Your task to perform on an android device: Go to location settings Image 0: 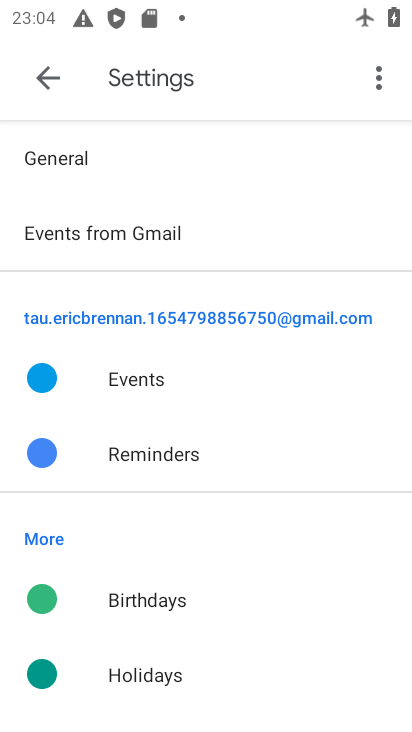
Step 0: click (109, 213)
Your task to perform on an android device: Go to location settings Image 1: 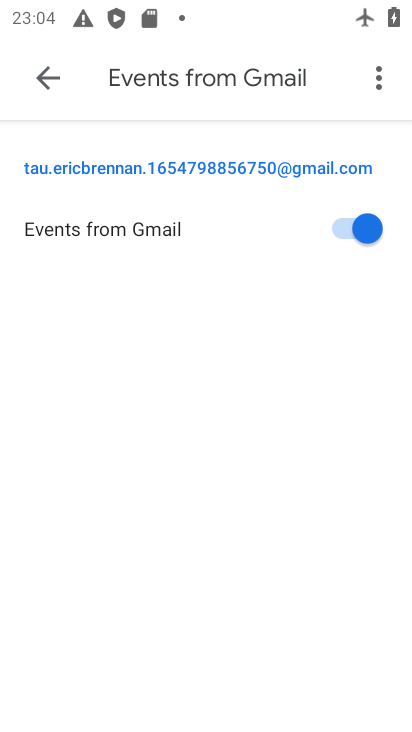
Step 1: click (42, 64)
Your task to perform on an android device: Go to location settings Image 2: 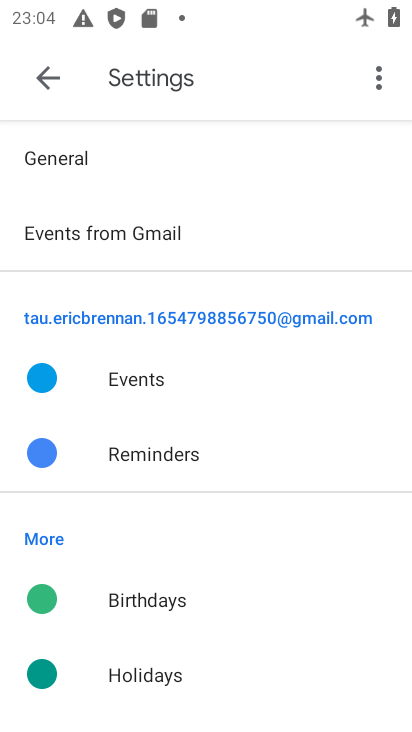
Step 2: click (41, 78)
Your task to perform on an android device: Go to location settings Image 3: 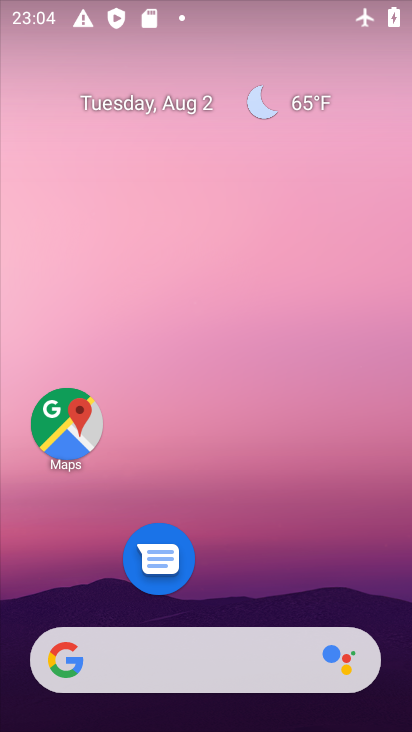
Step 3: drag from (272, 580) to (210, 148)
Your task to perform on an android device: Go to location settings Image 4: 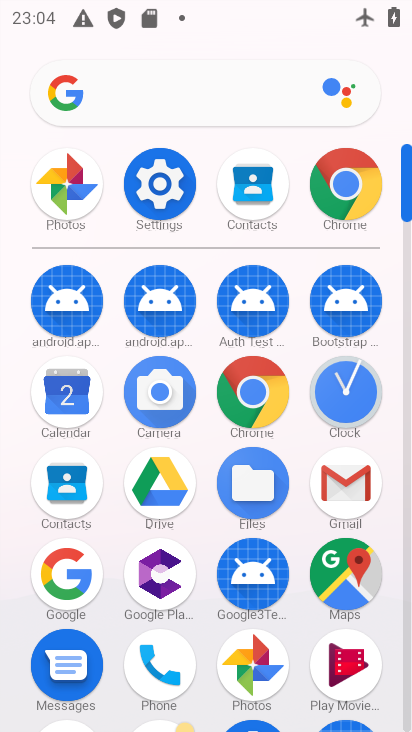
Step 4: click (144, 197)
Your task to perform on an android device: Go to location settings Image 5: 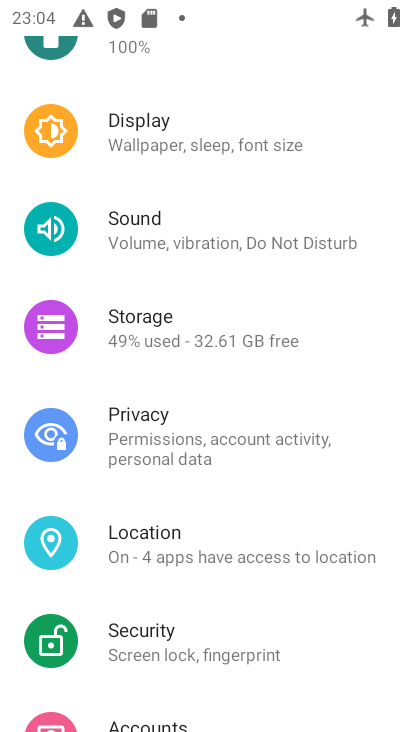
Step 5: click (149, 550)
Your task to perform on an android device: Go to location settings Image 6: 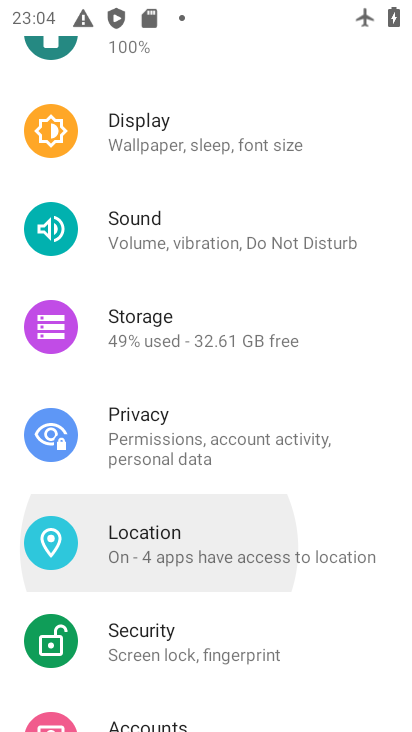
Step 6: click (153, 552)
Your task to perform on an android device: Go to location settings Image 7: 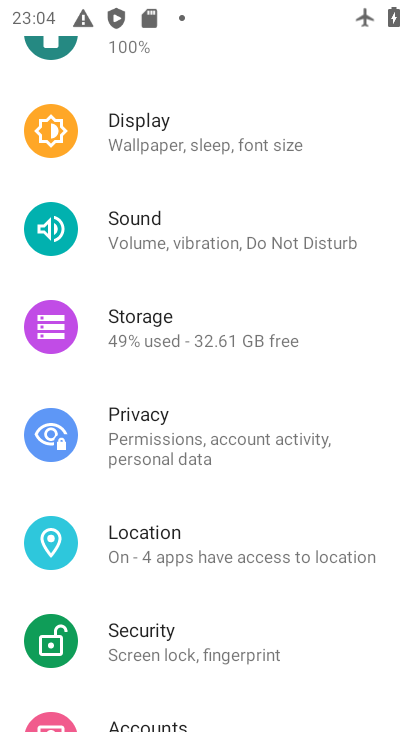
Step 7: click (154, 551)
Your task to perform on an android device: Go to location settings Image 8: 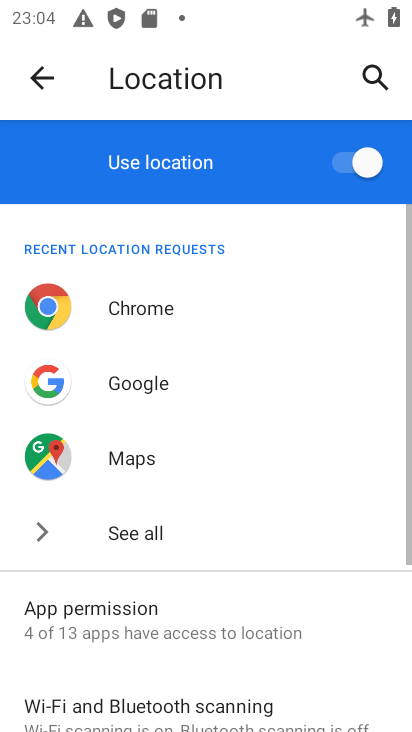
Step 8: drag from (170, 631) to (166, 374)
Your task to perform on an android device: Go to location settings Image 9: 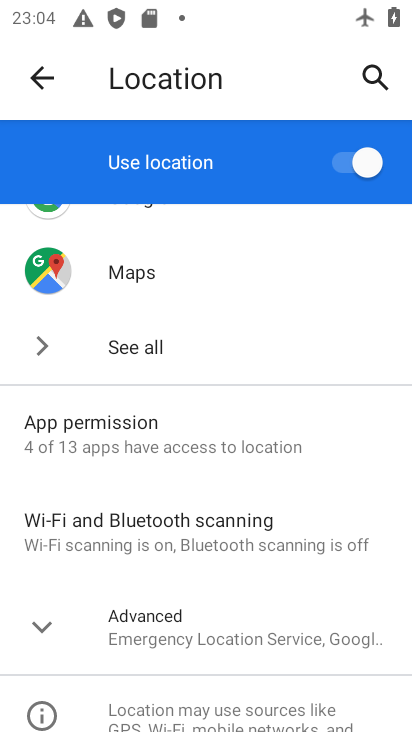
Step 9: click (360, 160)
Your task to perform on an android device: Go to location settings Image 10: 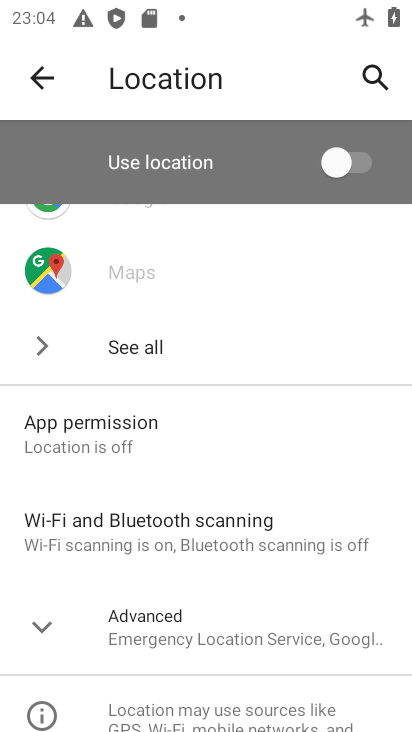
Step 10: task complete